Your task to perform on an android device: allow cookies in the chrome app Image 0: 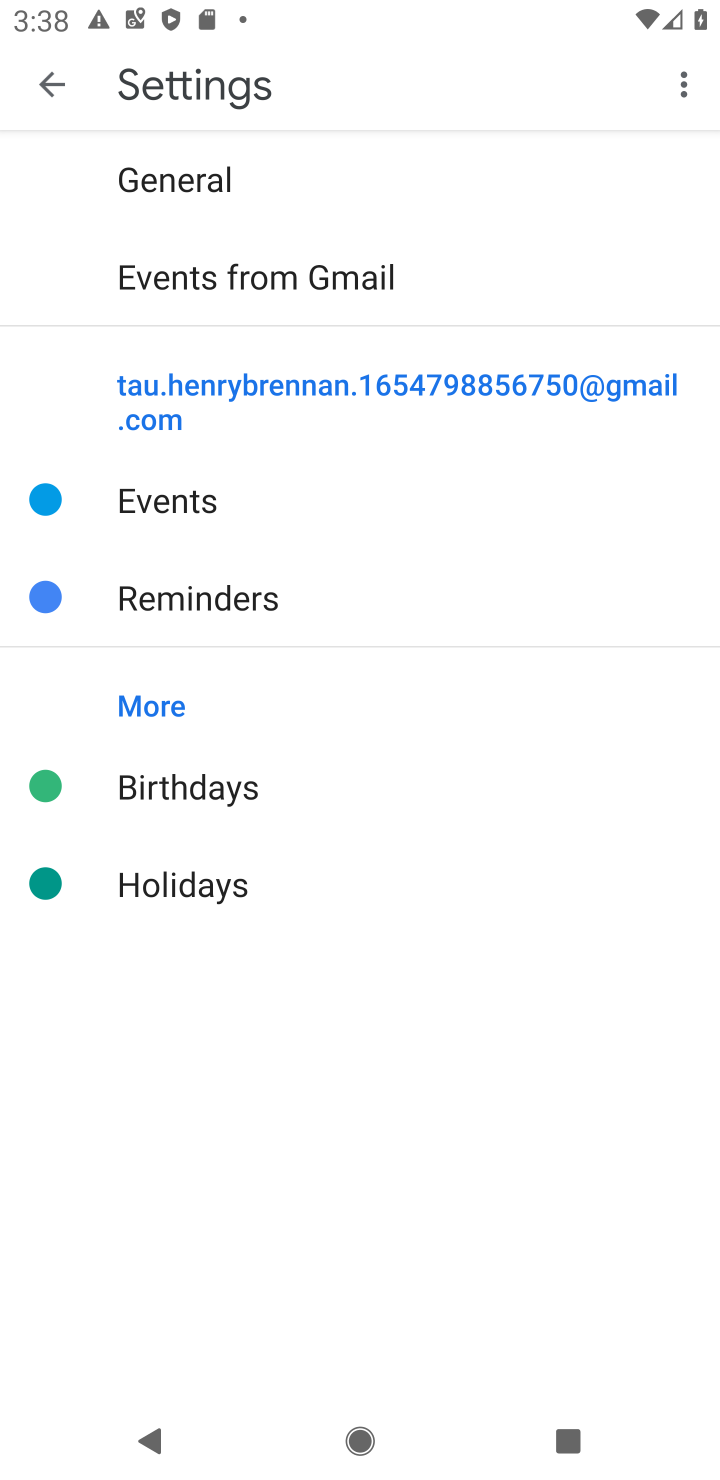
Step 0: press home button
Your task to perform on an android device: allow cookies in the chrome app Image 1: 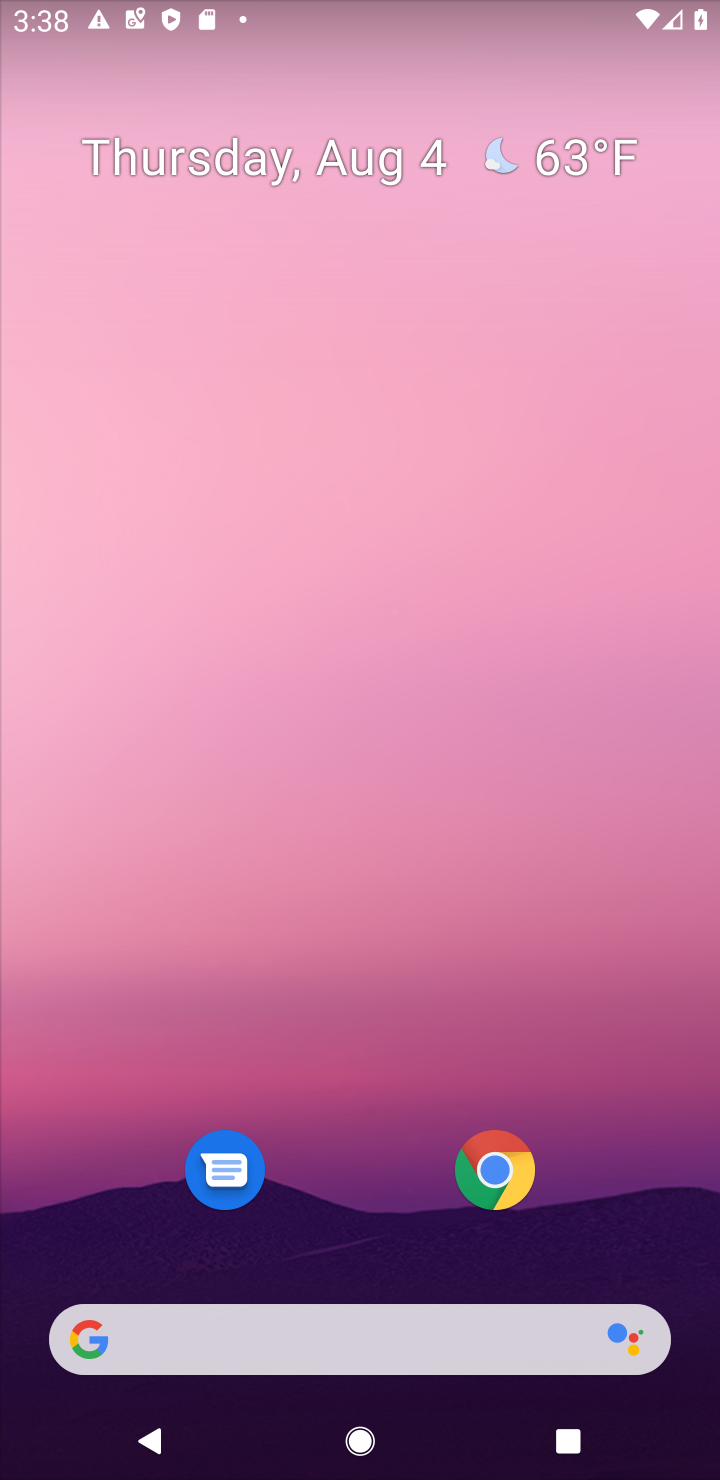
Step 1: click (490, 1175)
Your task to perform on an android device: allow cookies in the chrome app Image 2: 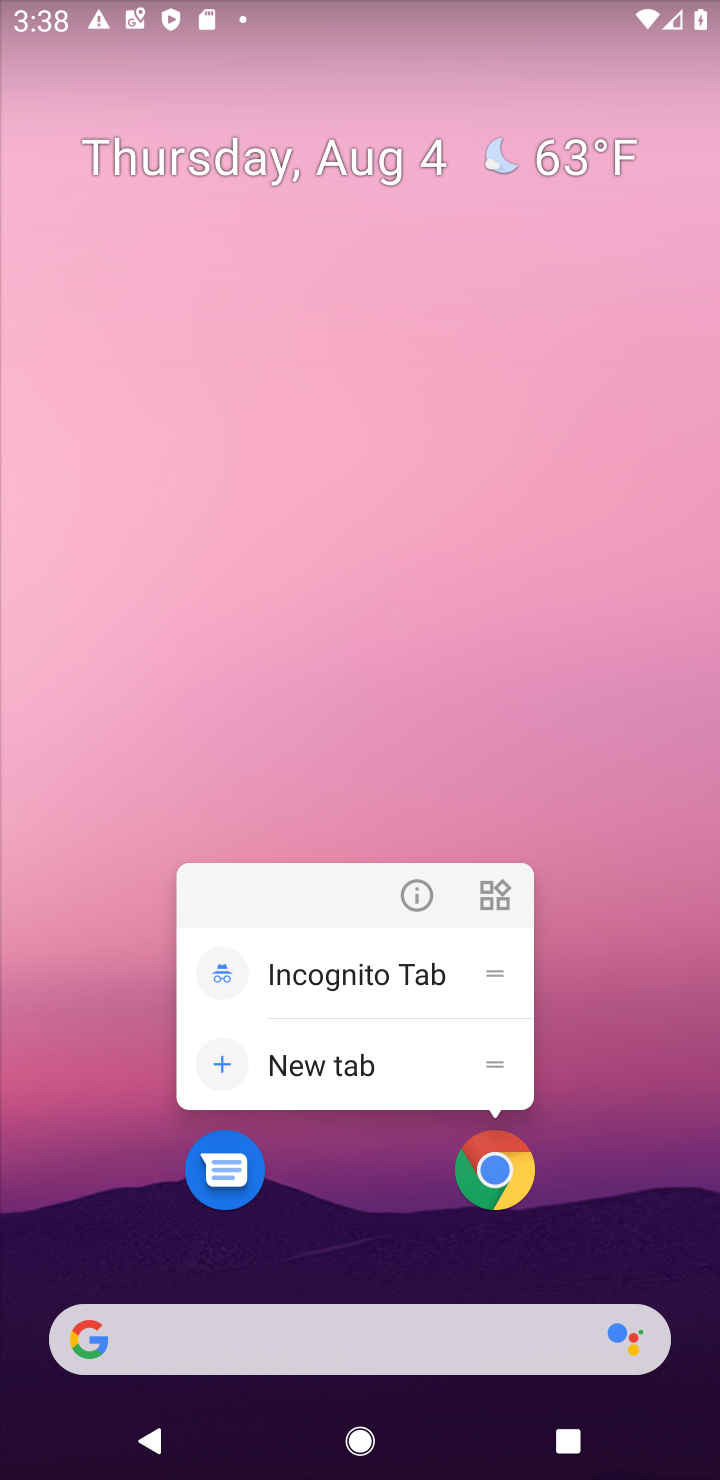
Step 2: click (490, 1175)
Your task to perform on an android device: allow cookies in the chrome app Image 3: 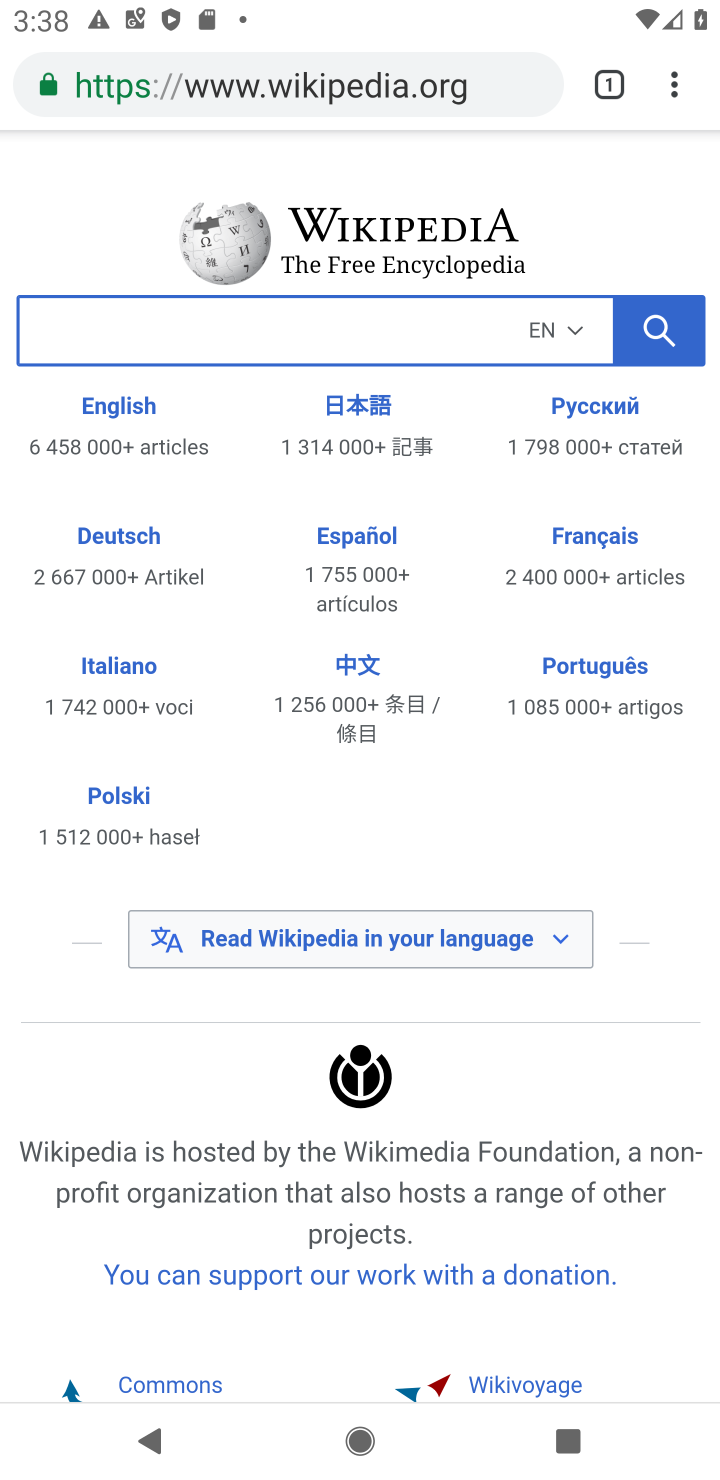
Step 3: click (646, 99)
Your task to perform on an android device: allow cookies in the chrome app Image 4: 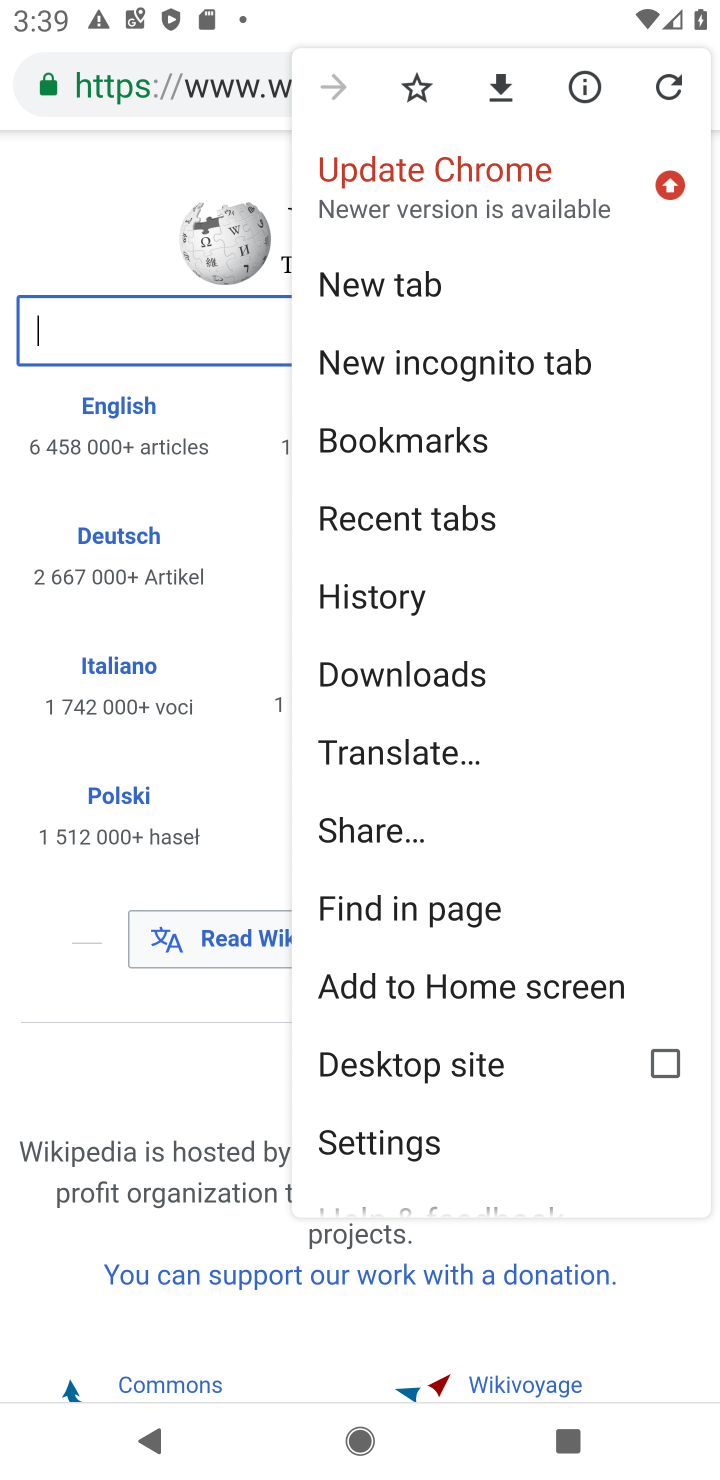
Step 4: click (393, 1138)
Your task to perform on an android device: allow cookies in the chrome app Image 5: 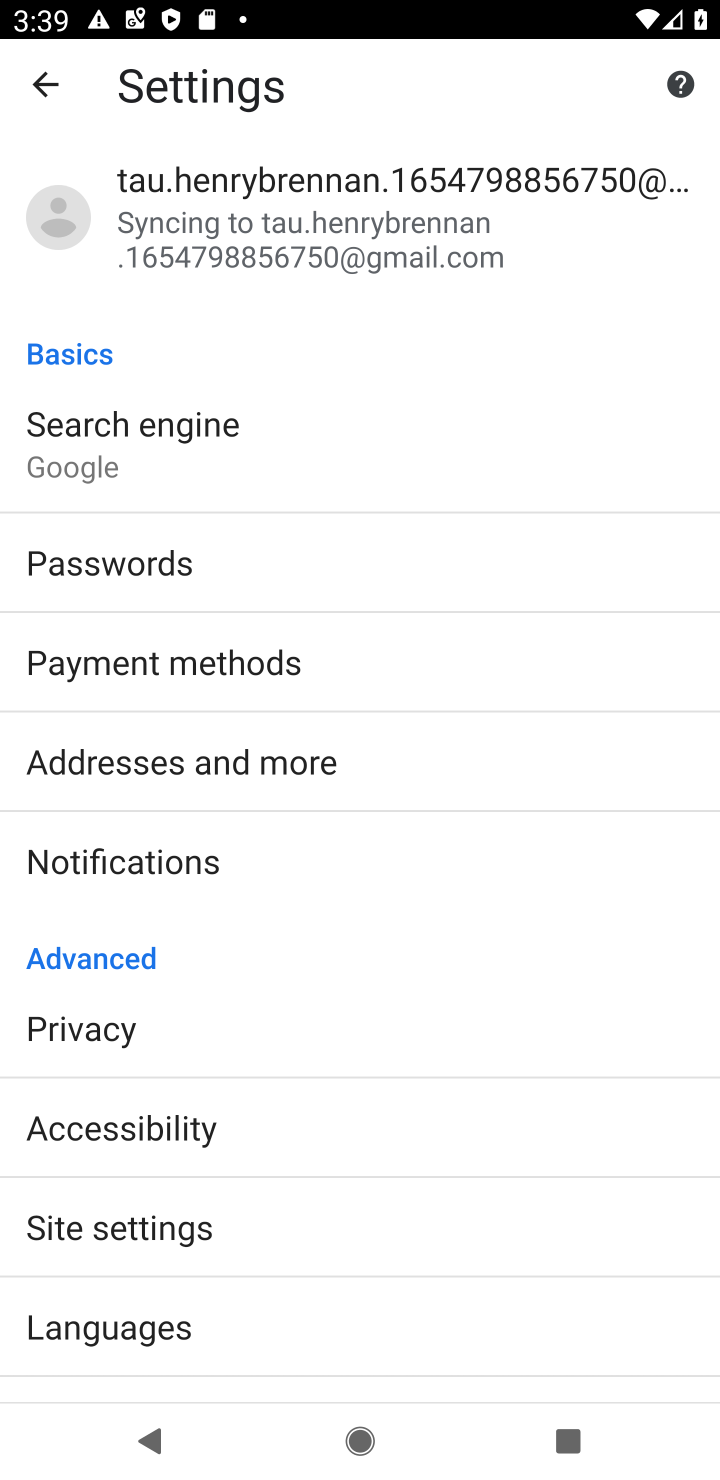
Step 5: drag from (436, 1194) to (465, 544)
Your task to perform on an android device: allow cookies in the chrome app Image 6: 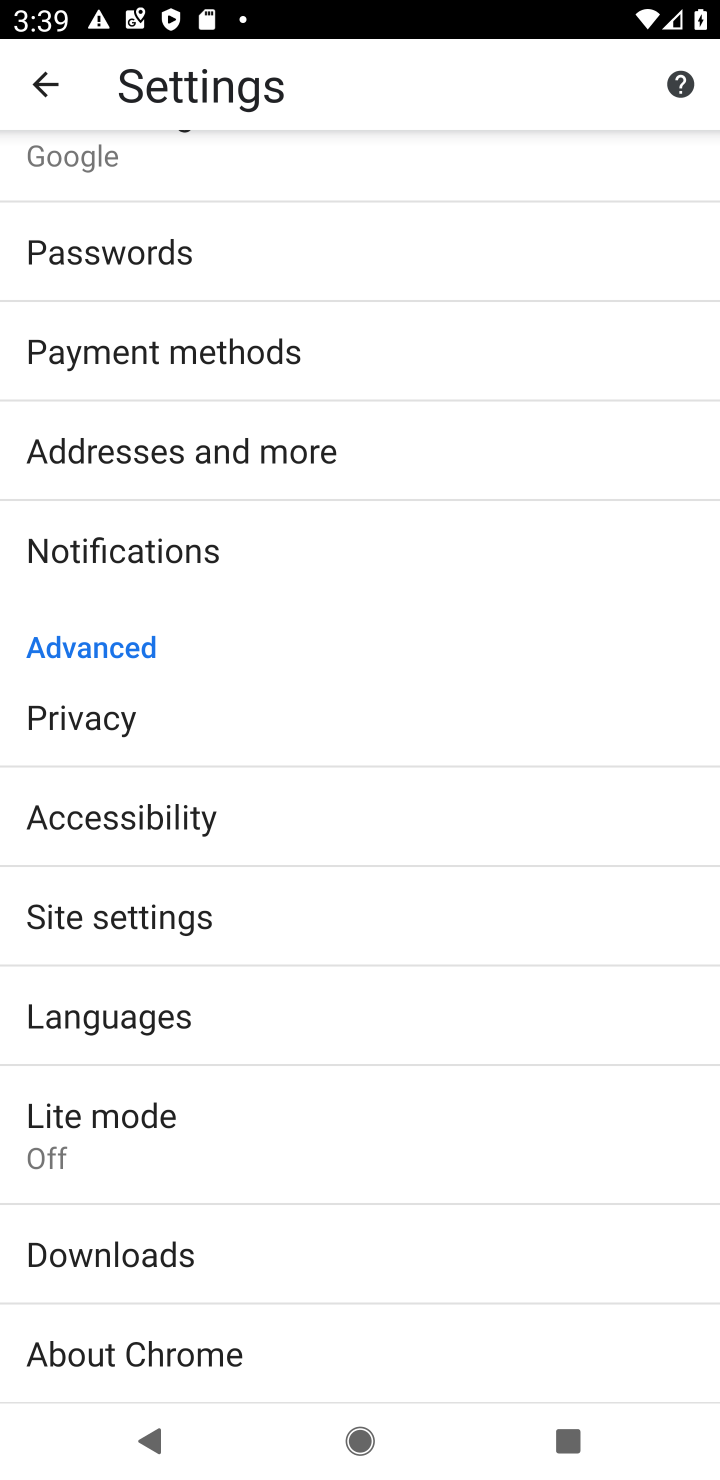
Step 6: click (106, 935)
Your task to perform on an android device: allow cookies in the chrome app Image 7: 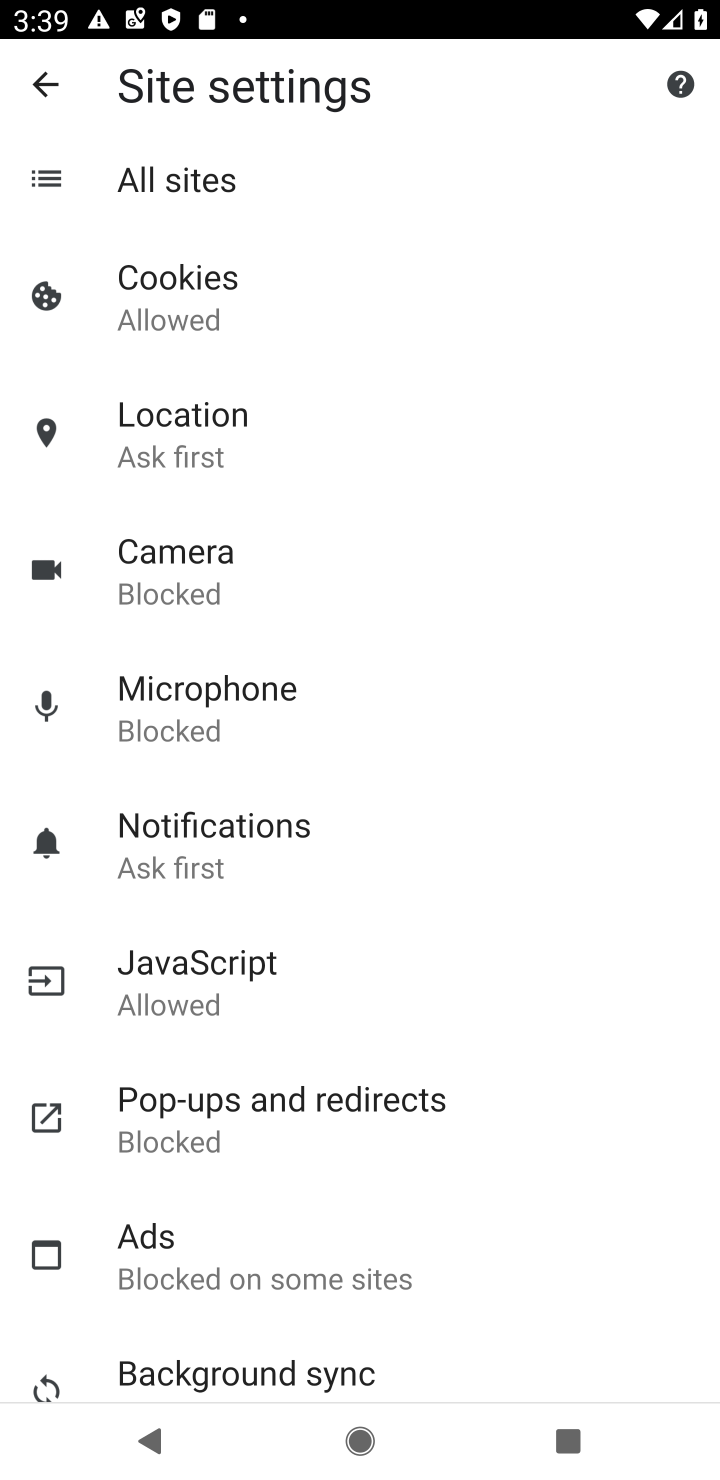
Step 7: click (168, 313)
Your task to perform on an android device: allow cookies in the chrome app Image 8: 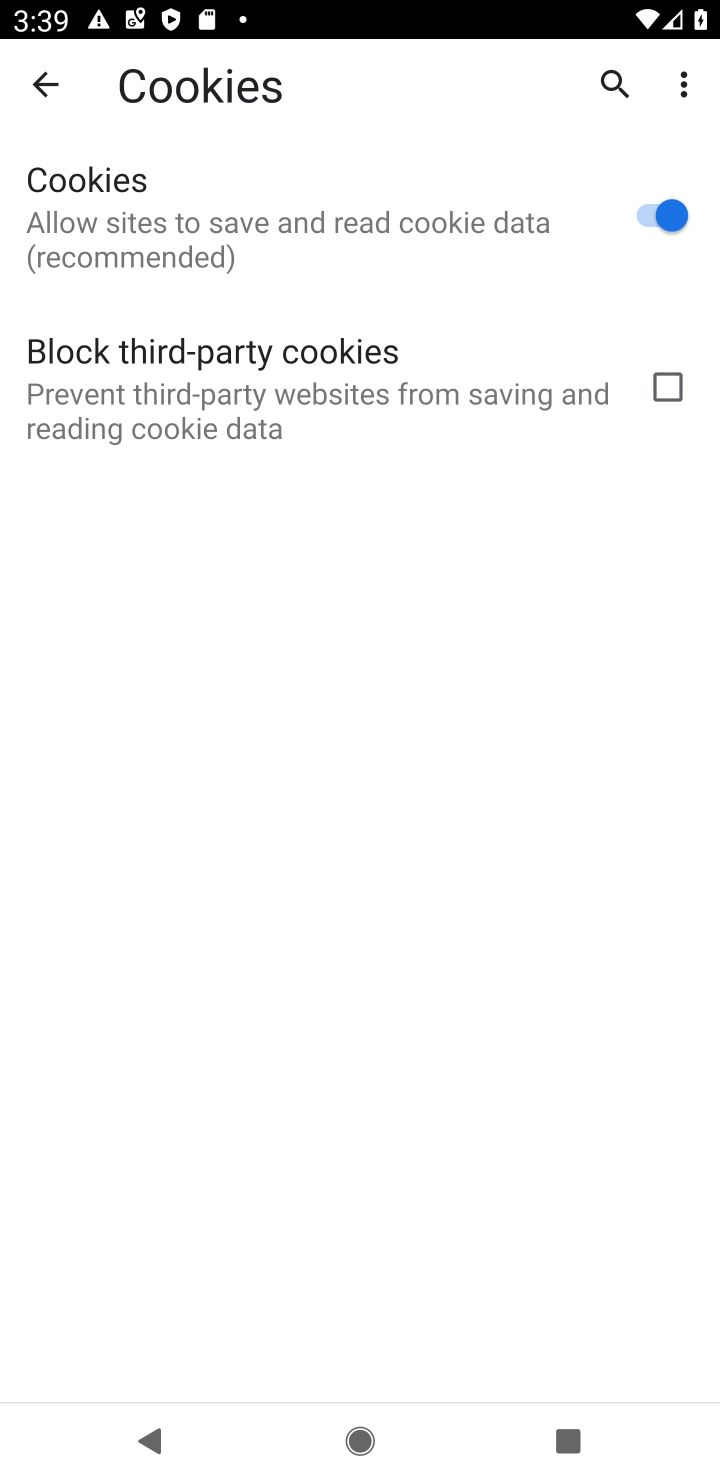
Step 8: task complete